Your task to perform on an android device: Go to privacy settings Image 0: 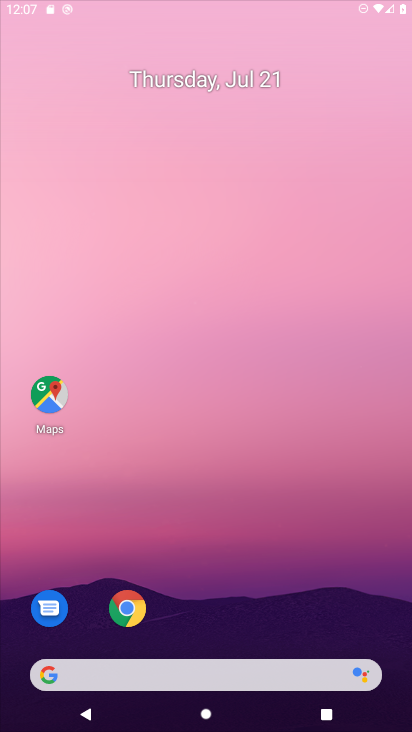
Step 0: press home button
Your task to perform on an android device: Go to privacy settings Image 1: 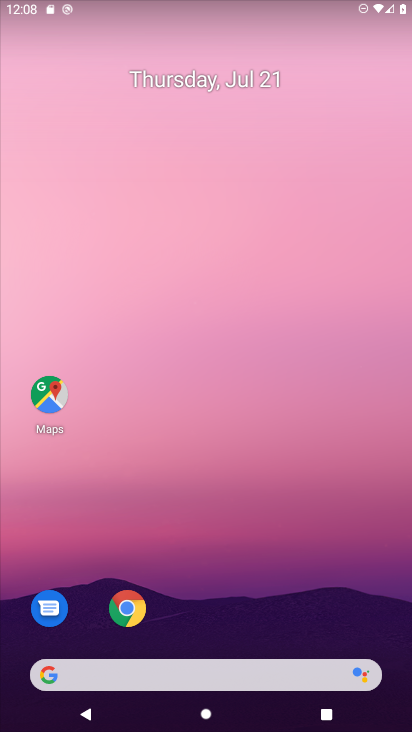
Step 1: press home button
Your task to perform on an android device: Go to privacy settings Image 2: 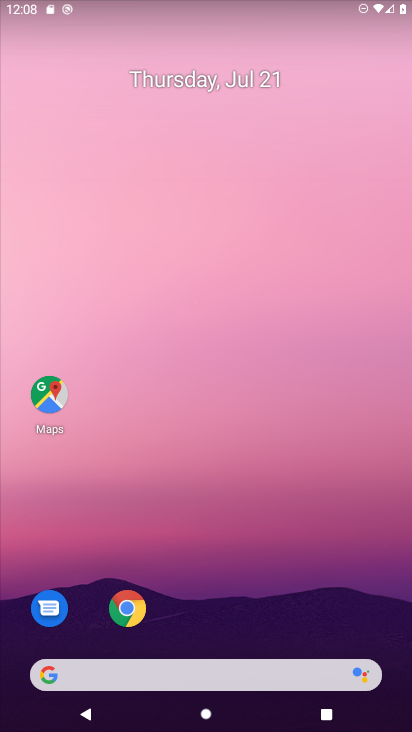
Step 2: drag from (223, 638) to (233, 28)
Your task to perform on an android device: Go to privacy settings Image 3: 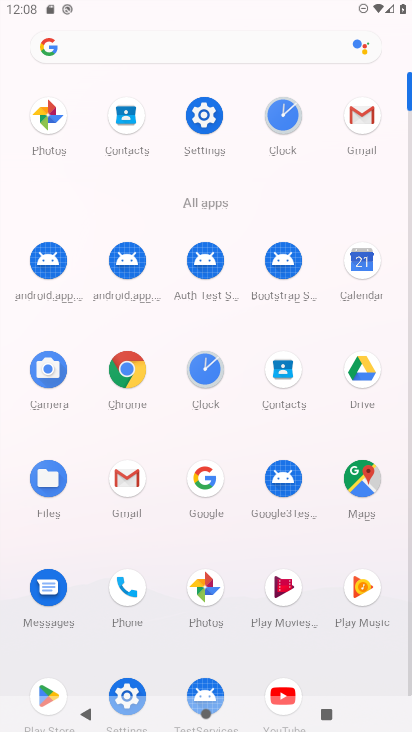
Step 3: click (201, 128)
Your task to perform on an android device: Go to privacy settings Image 4: 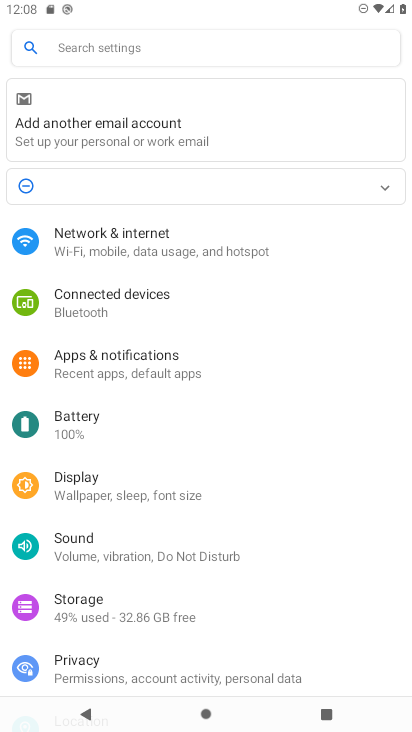
Step 4: click (78, 672)
Your task to perform on an android device: Go to privacy settings Image 5: 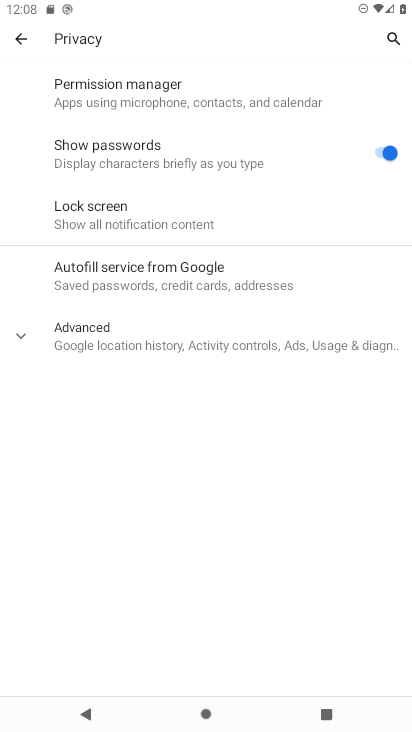
Step 5: task complete